Your task to perform on an android device: Go to settings Image 0: 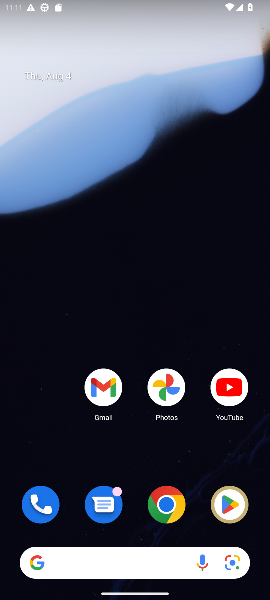
Step 0: drag from (130, 458) to (112, 191)
Your task to perform on an android device: Go to settings Image 1: 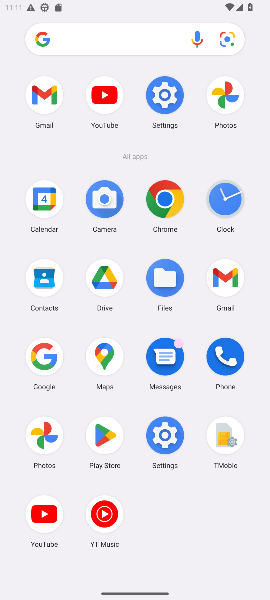
Step 1: click (163, 86)
Your task to perform on an android device: Go to settings Image 2: 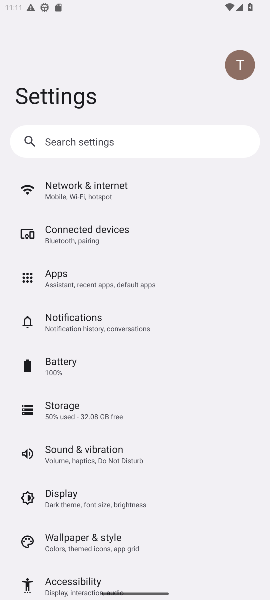
Step 2: task complete